Your task to perform on an android device: open wifi settings Image 0: 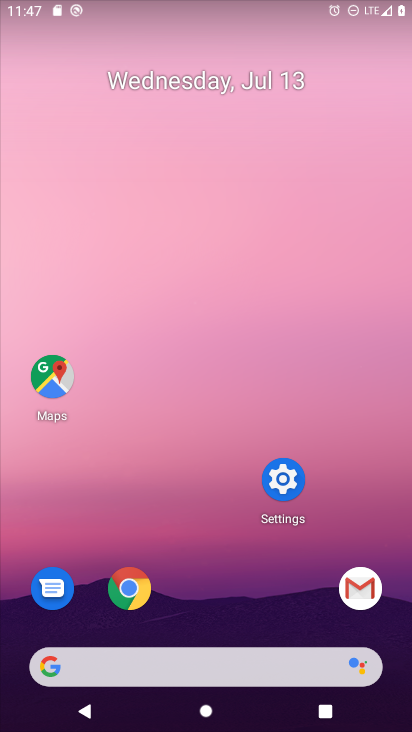
Step 0: click (295, 487)
Your task to perform on an android device: open wifi settings Image 1: 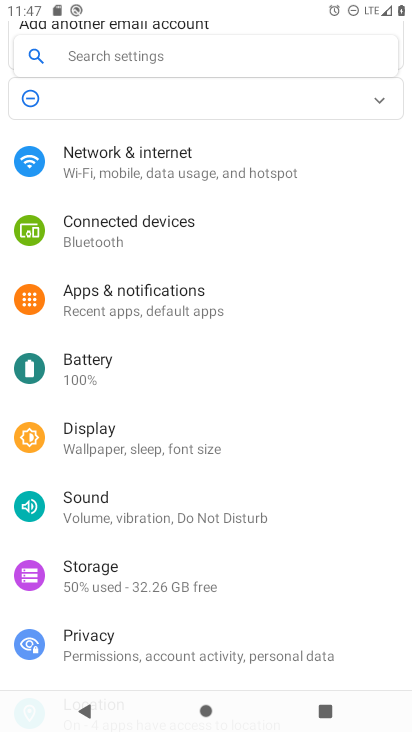
Step 1: click (144, 163)
Your task to perform on an android device: open wifi settings Image 2: 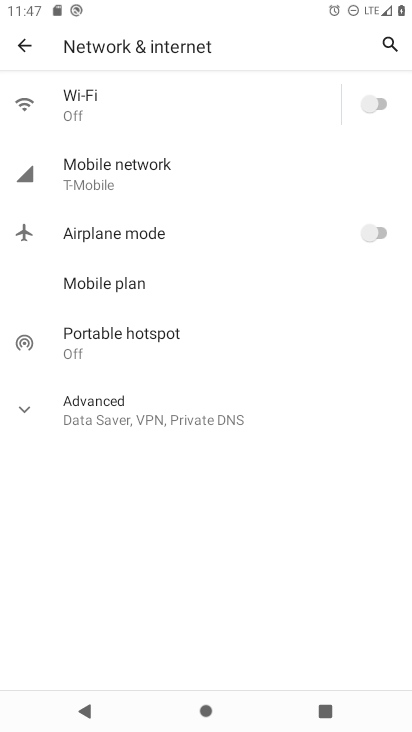
Step 2: click (120, 103)
Your task to perform on an android device: open wifi settings Image 3: 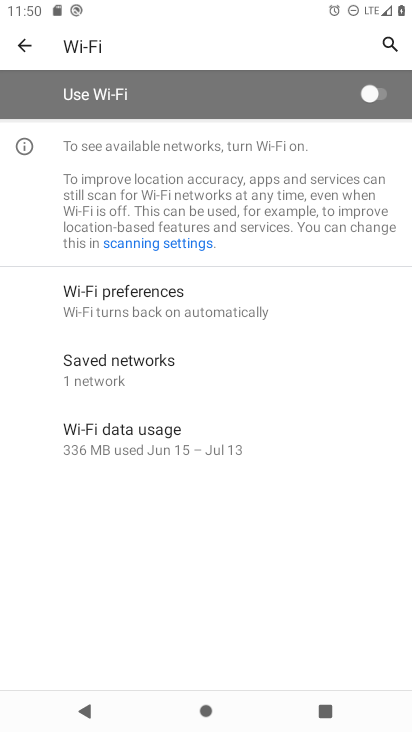
Step 3: task complete